Your task to perform on an android device: find which apps use the phone's location Image 0: 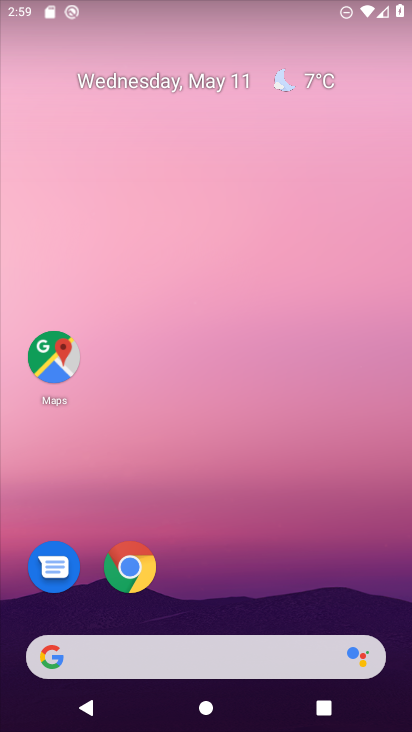
Step 0: drag from (318, 580) to (264, 146)
Your task to perform on an android device: find which apps use the phone's location Image 1: 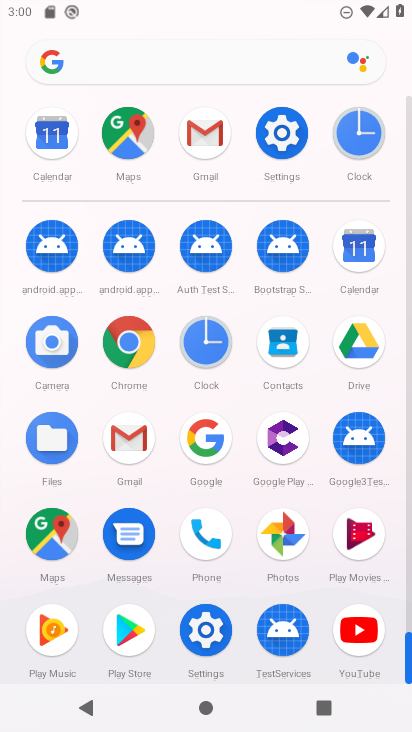
Step 1: click (214, 619)
Your task to perform on an android device: find which apps use the phone's location Image 2: 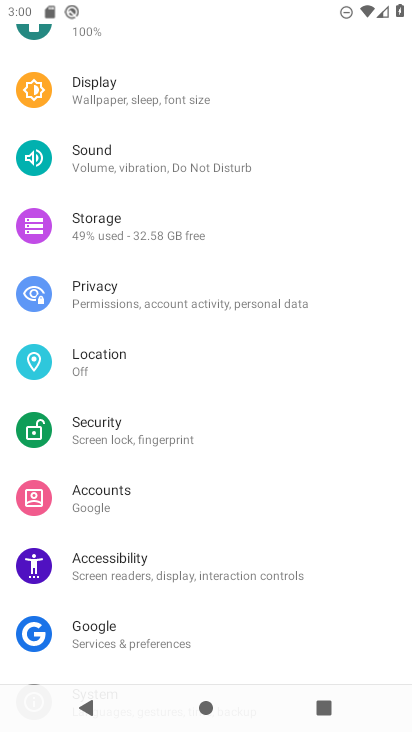
Step 2: click (131, 353)
Your task to perform on an android device: find which apps use the phone's location Image 3: 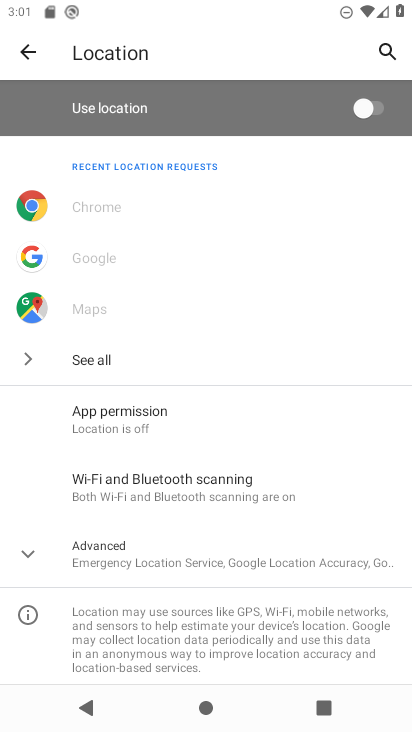
Step 3: click (187, 423)
Your task to perform on an android device: find which apps use the phone's location Image 4: 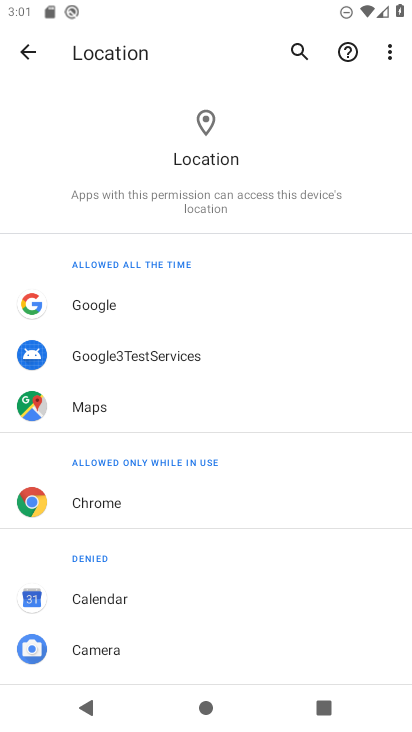
Step 4: task complete